Your task to perform on an android device: delete a single message in the gmail app Image 0: 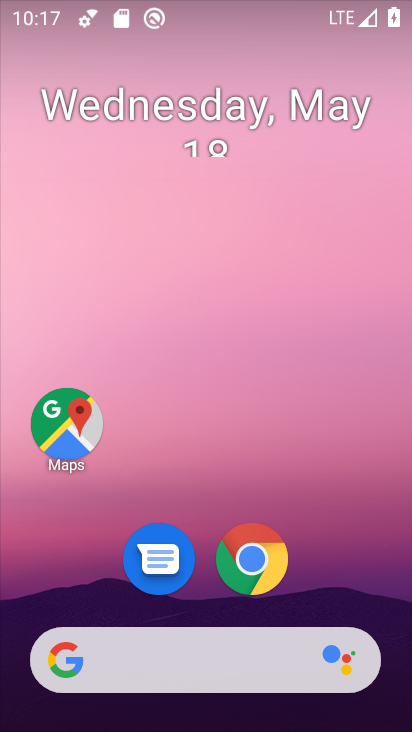
Step 0: drag from (201, 626) to (264, 247)
Your task to perform on an android device: delete a single message in the gmail app Image 1: 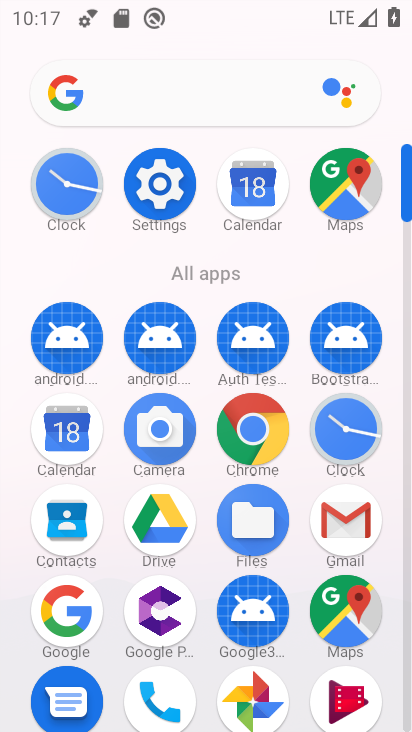
Step 1: click (343, 528)
Your task to perform on an android device: delete a single message in the gmail app Image 2: 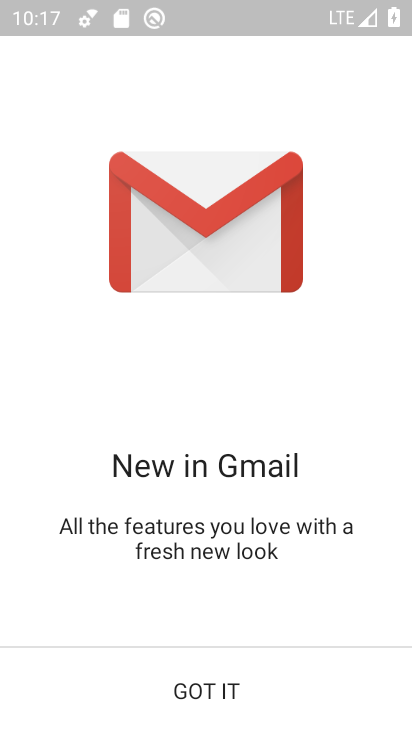
Step 2: click (193, 696)
Your task to perform on an android device: delete a single message in the gmail app Image 3: 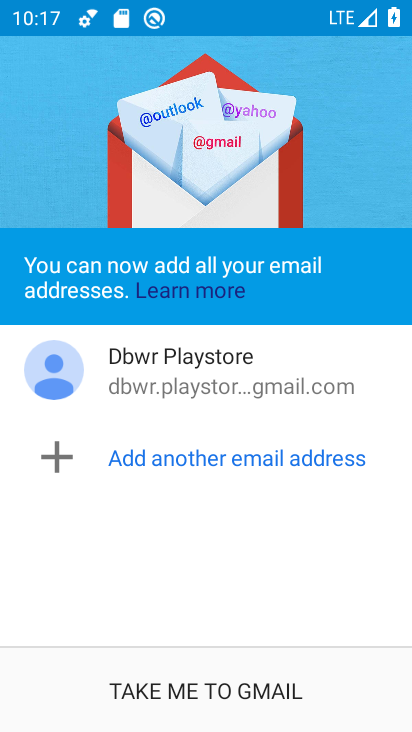
Step 3: click (196, 694)
Your task to perform on an android device: delete a single message in the gmail app Image 4: 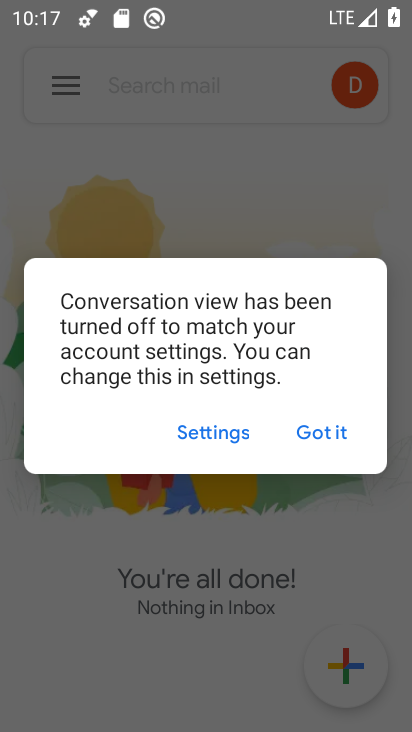
Step 4: click (313, 427)
Your task to perform on an android device: delete a single message in the gmail app Image 5: 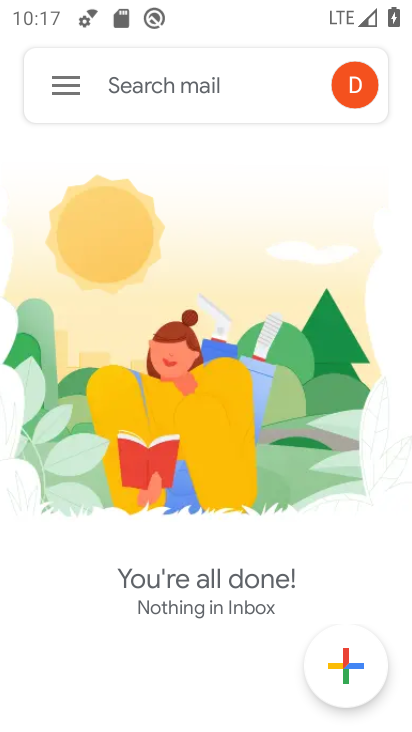
Step 5: click (50, 94)
Your task to perform on an android device: delete a single message in the gmail app Image 6: 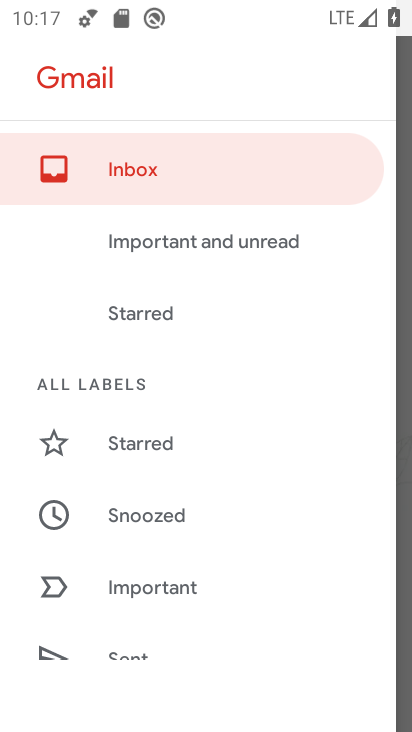
Step 6: drag from (122, 488) to (187, 145)
Your task to perform on an android device: delete a single message in the gmail app Image 7: 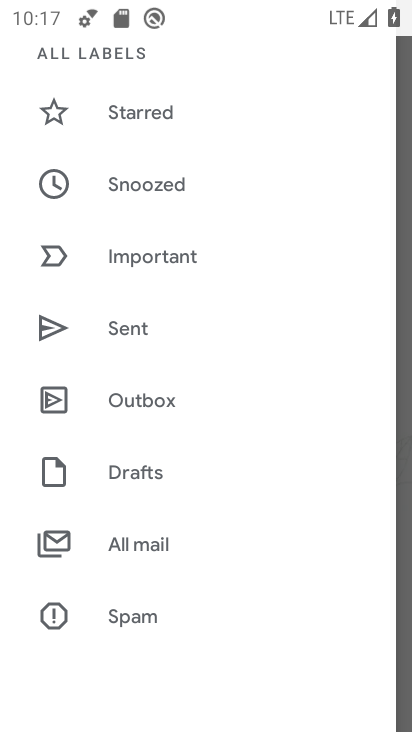
Step 7: click (142, 544)
Your task to perform on an android device: delete a single message in the gmail app Image 8: 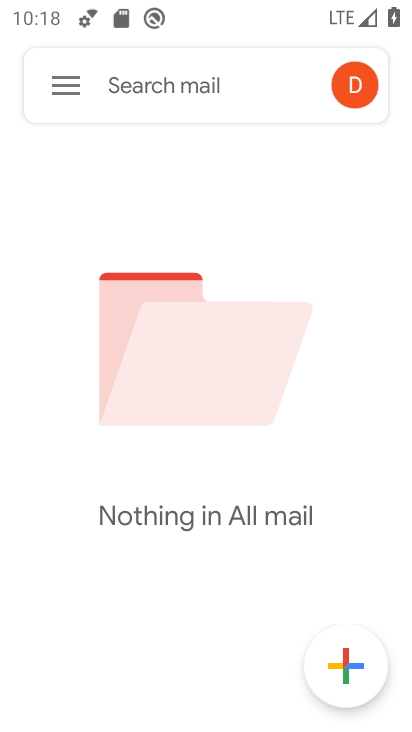
Step 8: task complete